Your task to perform on an android device: change text size in settings app Image 0: 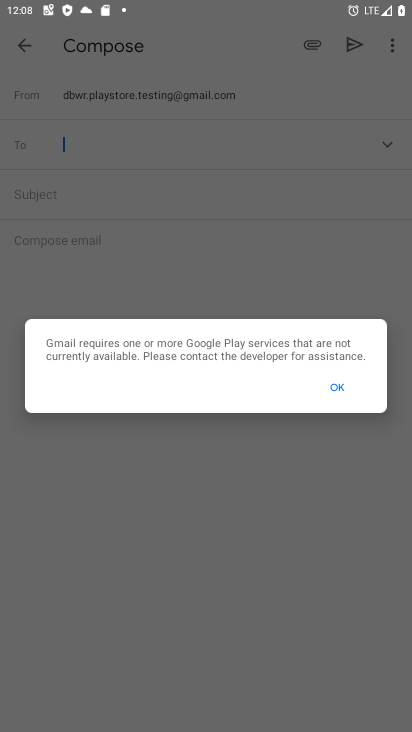
Step 0: press home button
Your task to perform on an android device: change text size in settings app Image 1: 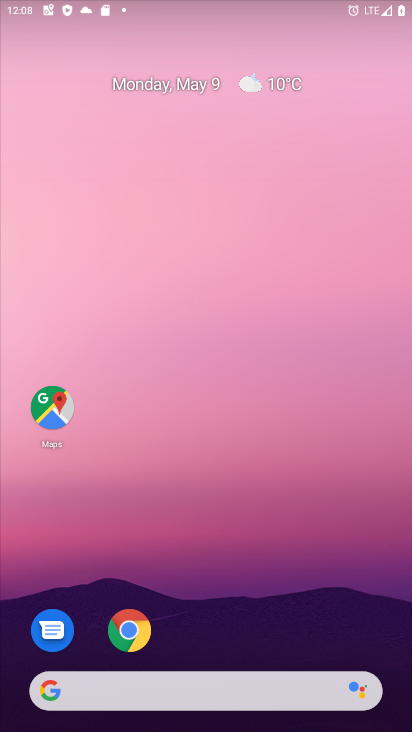
Step 1: drag from (308, 621) to (174, 11)
Your task to perform on an android device: change text size in settings app Image 2: 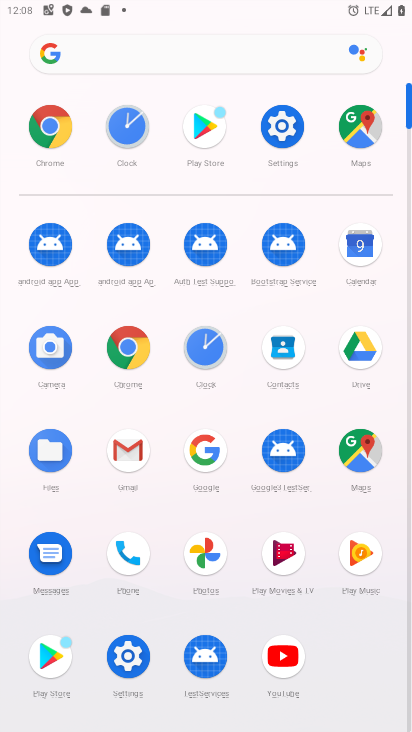
Step 2: click (111, 661)
Your task to perform on an android device: change text size in settings app Image 3: 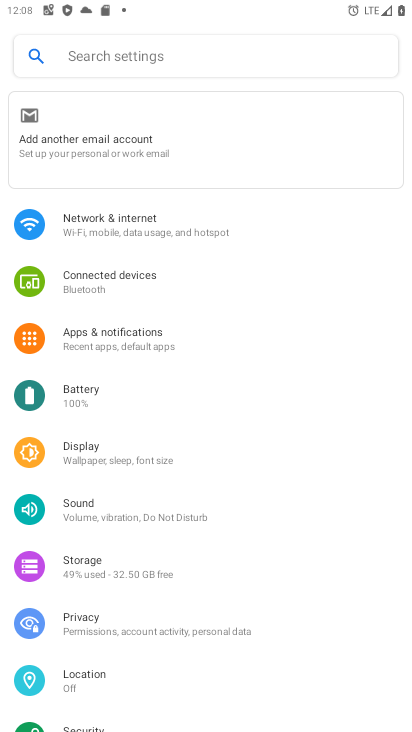
Step 3: click (126, 457)
Your task to perform on an android device: change text size in settings app Image 4: 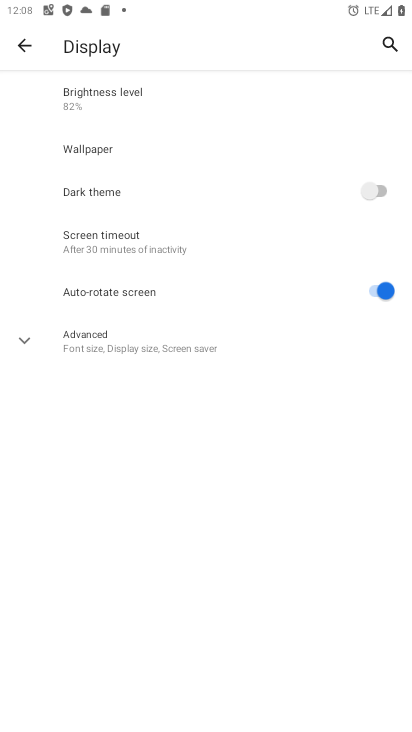
Step 4: click (98, 350)
Your task to perform on an android device: change text size in settings app Image 5: 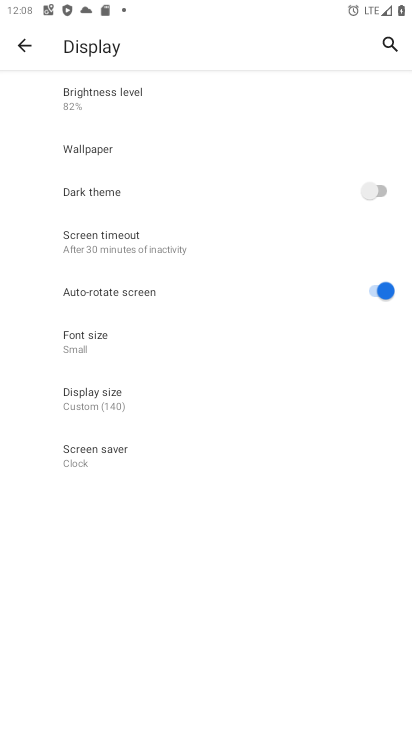
Step 5: click (106, 357)
Your task to perform on an android device: change text size in settings app Image 6: 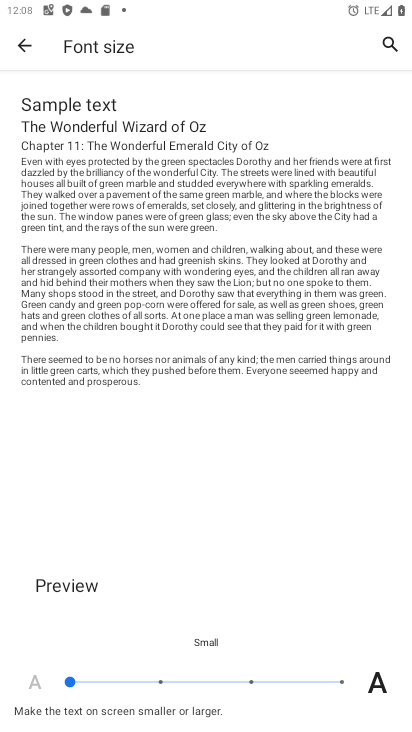
Step 6: click (156, 681)
Your task to perform on an android device: change text size in settings app Image 7: 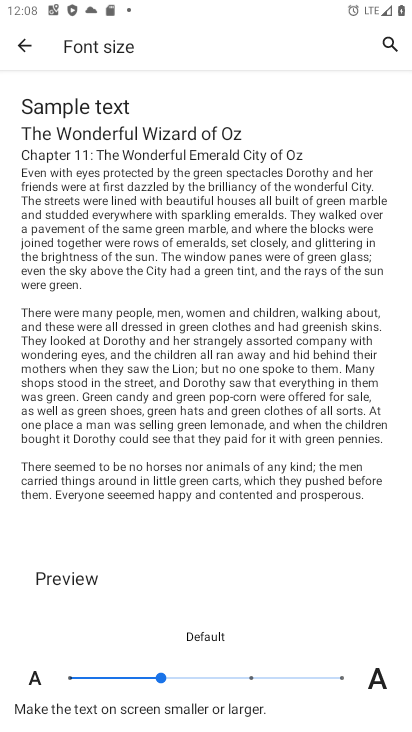
Step 7: task complete